Your task to perform on an android device: turn on sleep mode Image 0: 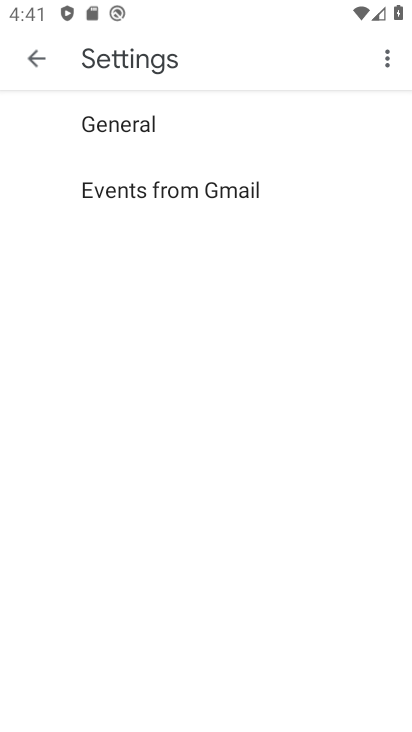
Step 0: press home button
Your task to perform on an android device: turn on sleep mode Image 1: 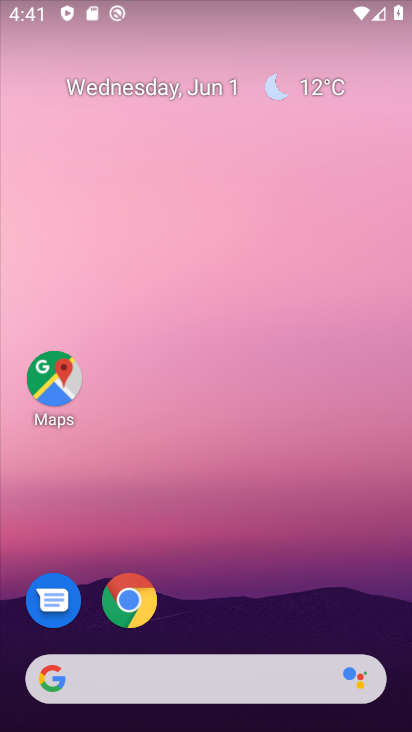
Step 1: drag from (231, 267) to (254, 114)
Your task to perform on an android device: turn on sleep mode Image 2: 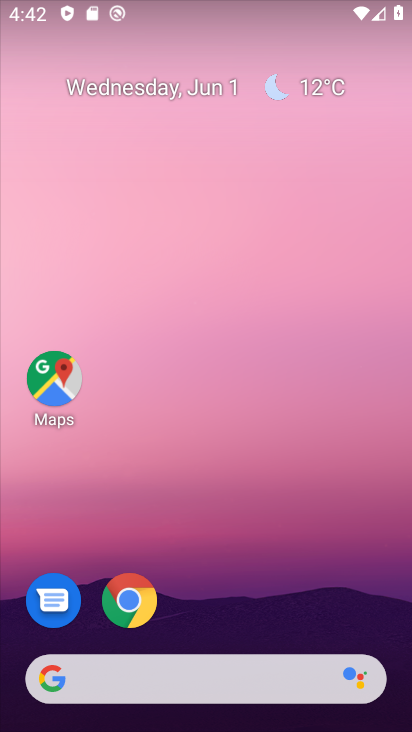
Step 2: drag from (245, 547) to (217, 120)
Your task to perform on an android device: turn on sleep mode Image 3: 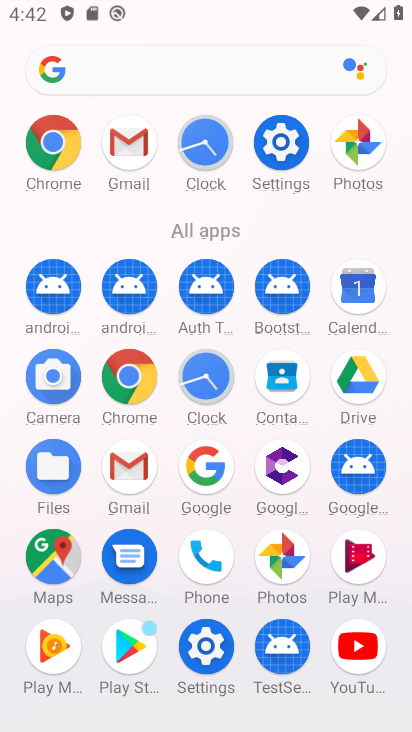
Step 3: click (281, 140)
Your task to perform on an android device: turn on sleep mode Image 4: 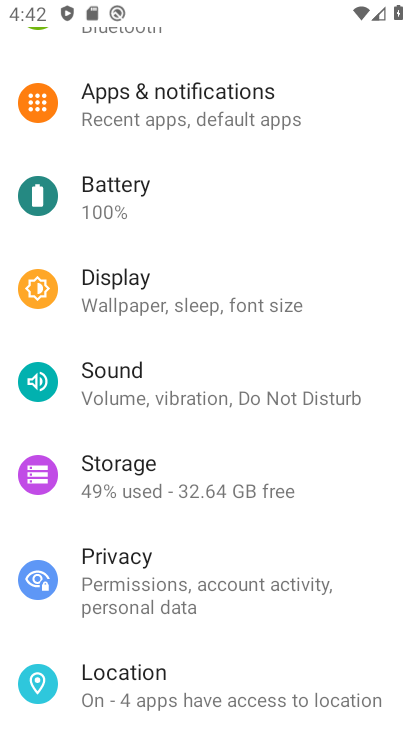
Step 4: click (202, 319)
Your task to perform on an android device: turn on sleep mode Image 5: 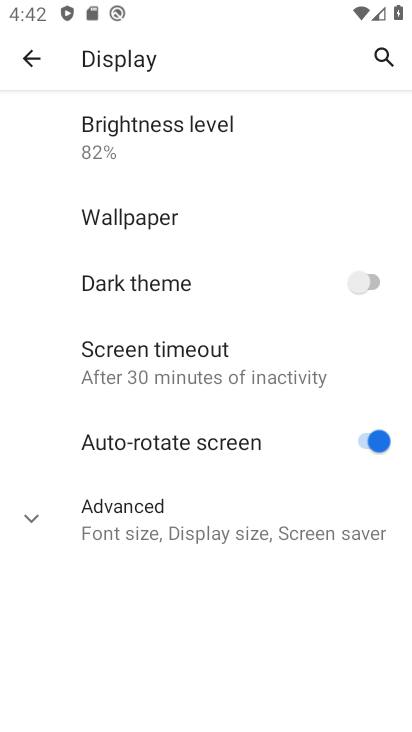
Step 5: click (213, 531)
Your task to perform on an android device: turn on sleep mode Image 6: 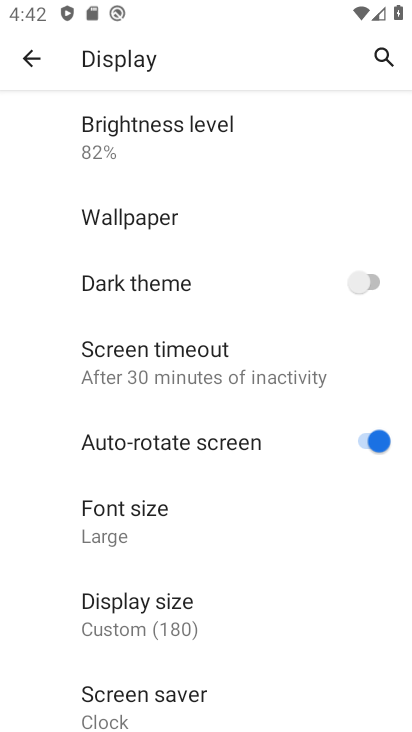
Step 6: drag from (125, 639) to (207, 524)
Your task to perform on an android device: turn on sleep mode Image 7: 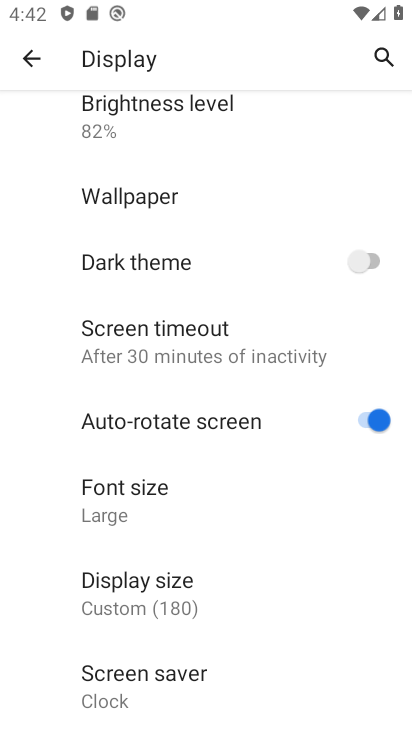
Step 7: click (186, 662)
Your task to perform on an android device: turn on sleep mode Image 8: 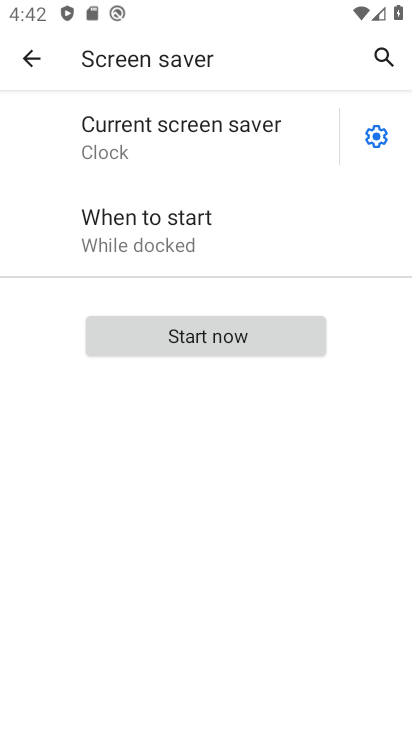
Step 8: task complete